Your task to perform on an android device: Open the phone app and click the voicemail tab. Image 0: 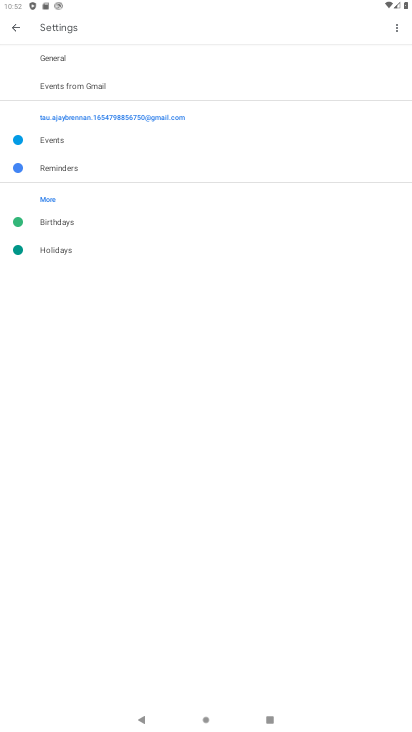
Step 0: press back button
Your task to perform on an android device: Open the phone app and click the voicemail tab. Image 1: 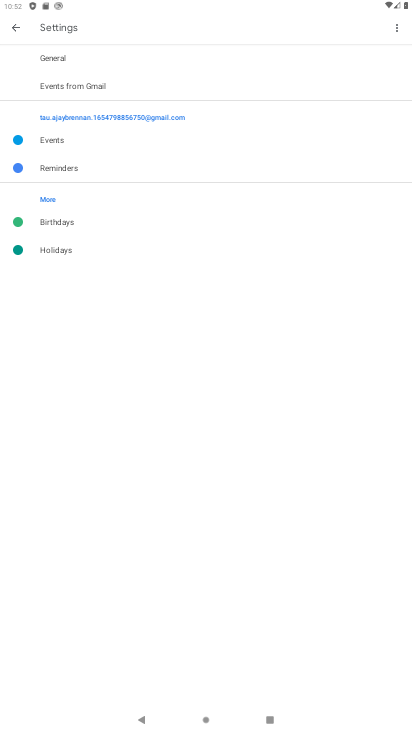
Step 1: press back button
Your task to perform on an android device: Open the phone app and click the voicemail tab. Image 2: 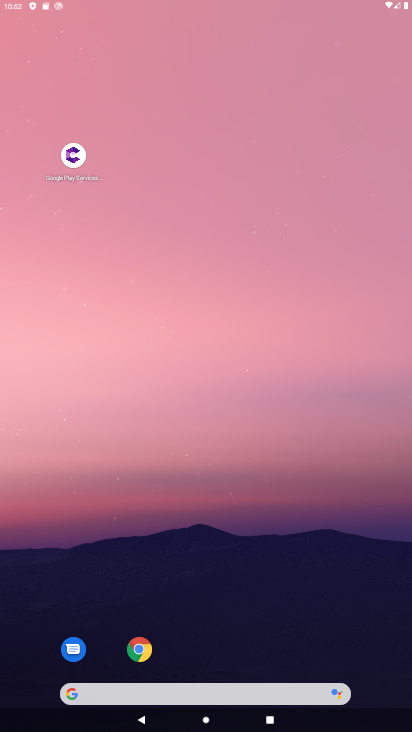
Step 2: press back button
Your task to perform on an android device: Open the phone app and click the voicemail tab. Image 3: 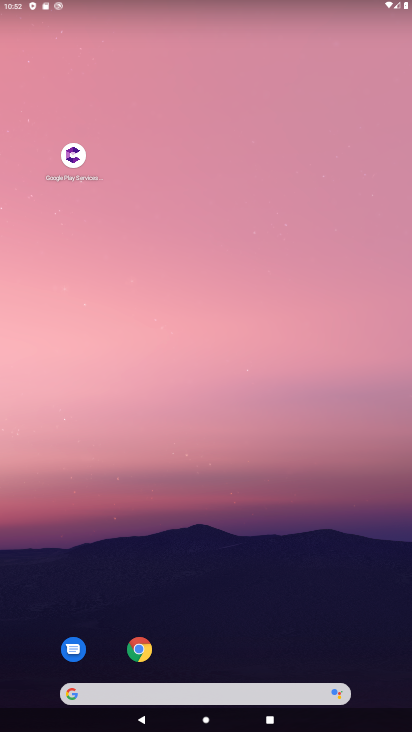
Step 3: press back button
Your task to perform on an android device: Open the phone app and click the voicemail tab. Image 4: 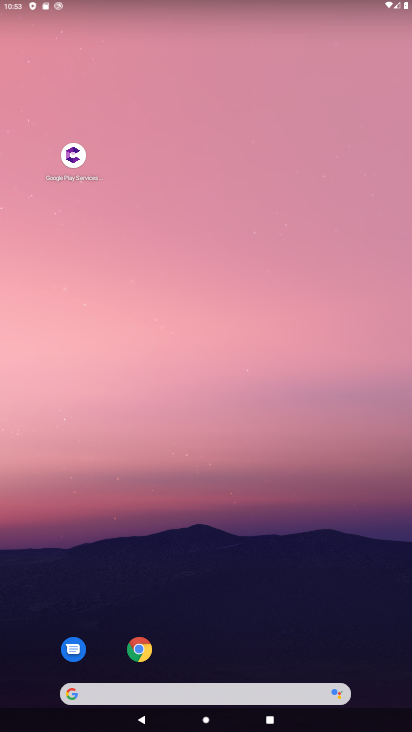
Step 4: drag from (183, 668) to (170, 166)
Your task to perform on an android device: Open the phone app and click the voicemail tab. Image 5: 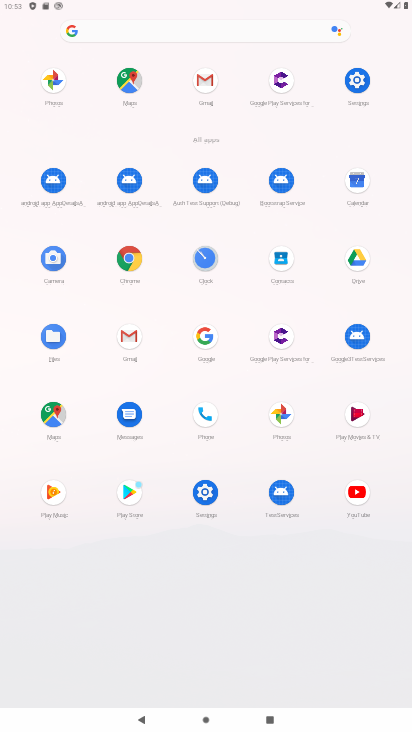
Step 5: click (208, 419)
Your task to perform on an android device: Open the phone app and click the voicemail tab. Image 6: 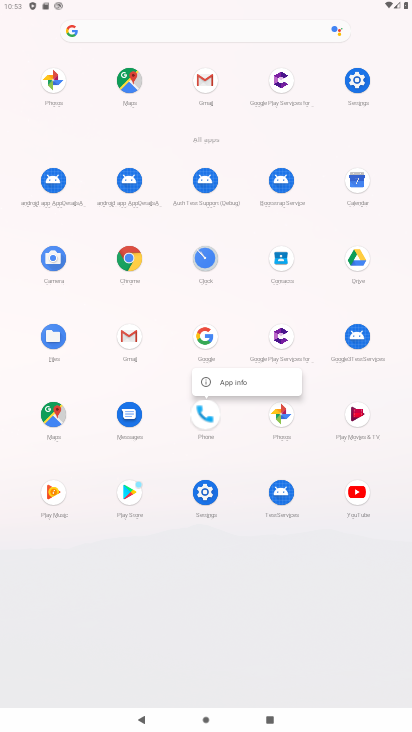
Step 6: click (208, 418)
Your task to perform on an android device: Open the phone app and click the voicemail tab. Image 7: 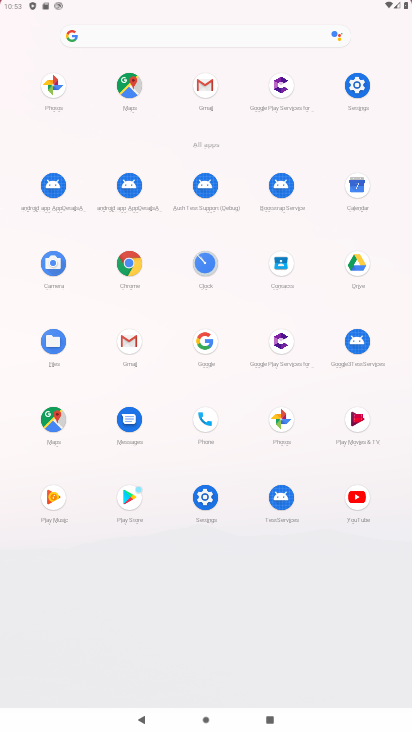
Step 7: click (216, 429)
Your task to perform on an android device: Open the phone app and click the voicemail tab. Image 8: 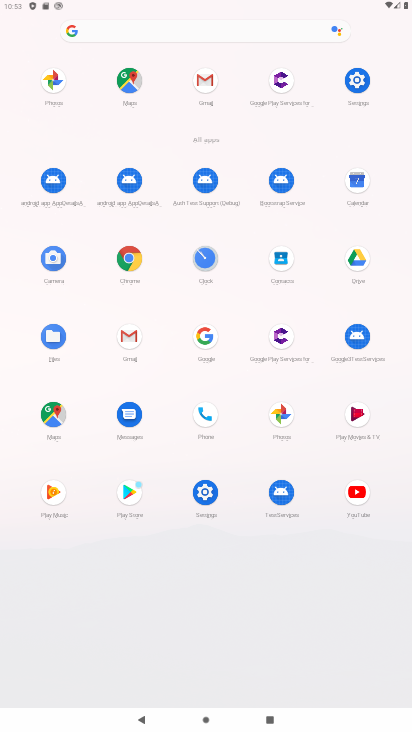
Step 8: click (213, 416)
Your task to perform on an android device: Open the phone app and click the voicemail tab. Image 9: 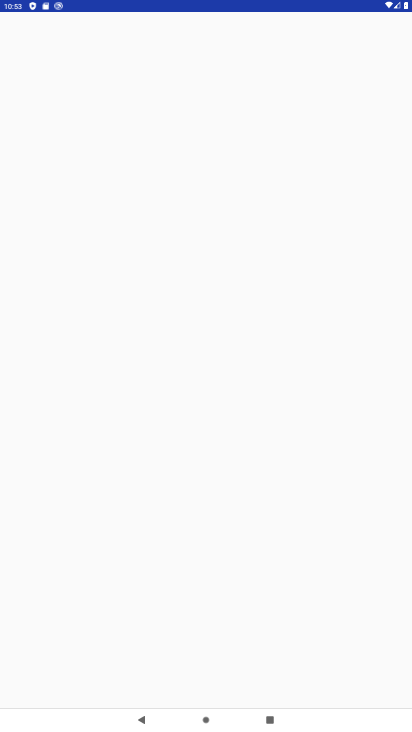
Step 9: click (211, 406)
Your task to perform on an android device: Open the phone app and click the voicemail tab. Image 10: 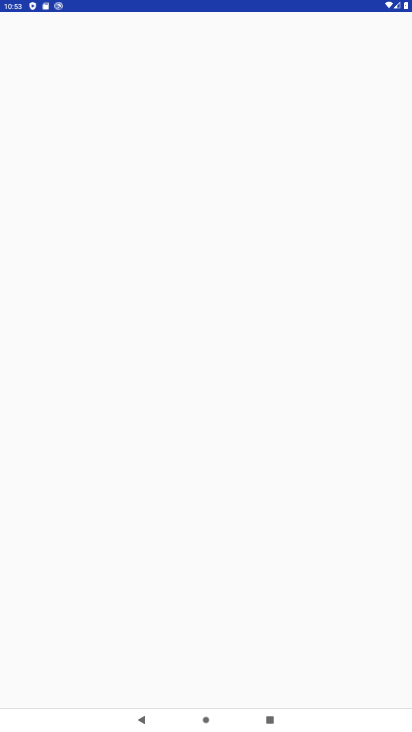
Step 10: click (205, 408)
Your task to perform on an android device: Open the phone app and click the voicemail tab. Image 11: 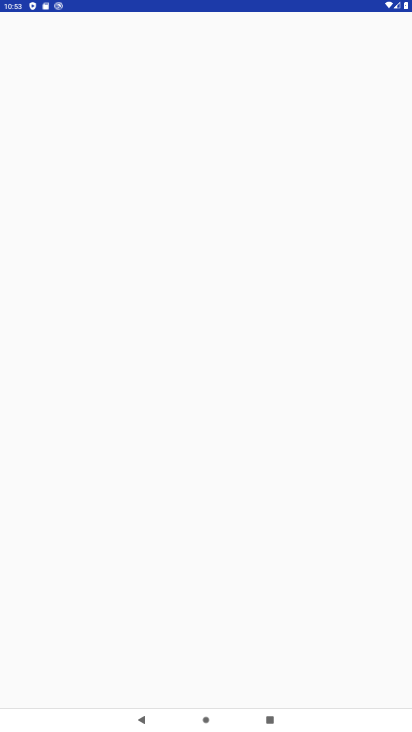
Step 11: click (216, 427)
Your task to perform on an android device: Open the phone app and click the voicemail tab. Image 12: 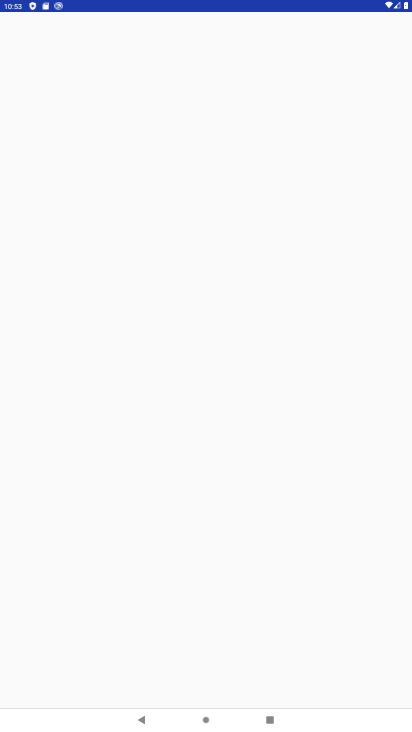
Step 12: click (213, 435)
Your task to perform on an android device: Open the phone app and click the voicemail tab. Image 13: 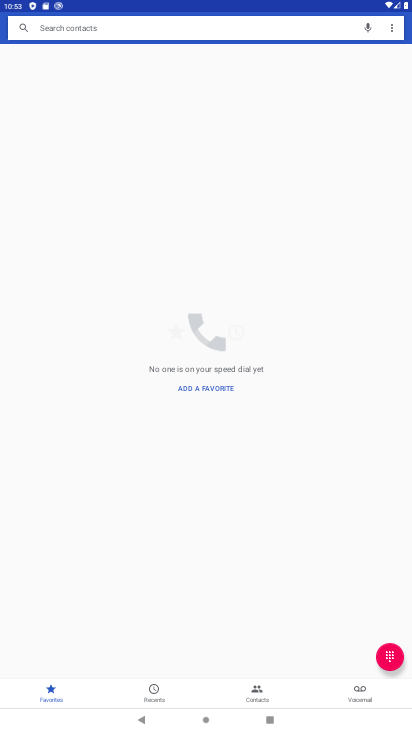
Step 13: click (206, 378)
Your task to perform on an android device: Open the phone app and click the voicemail tab. Image 14: 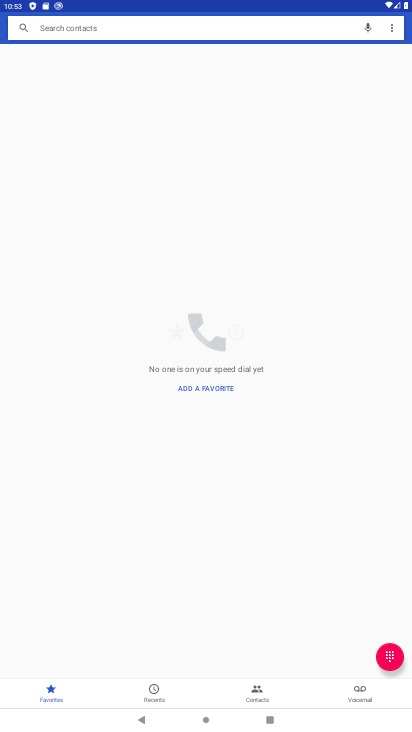
Step 14: task complete